Your task to perform on an android device: Open CNN.com Image 0: 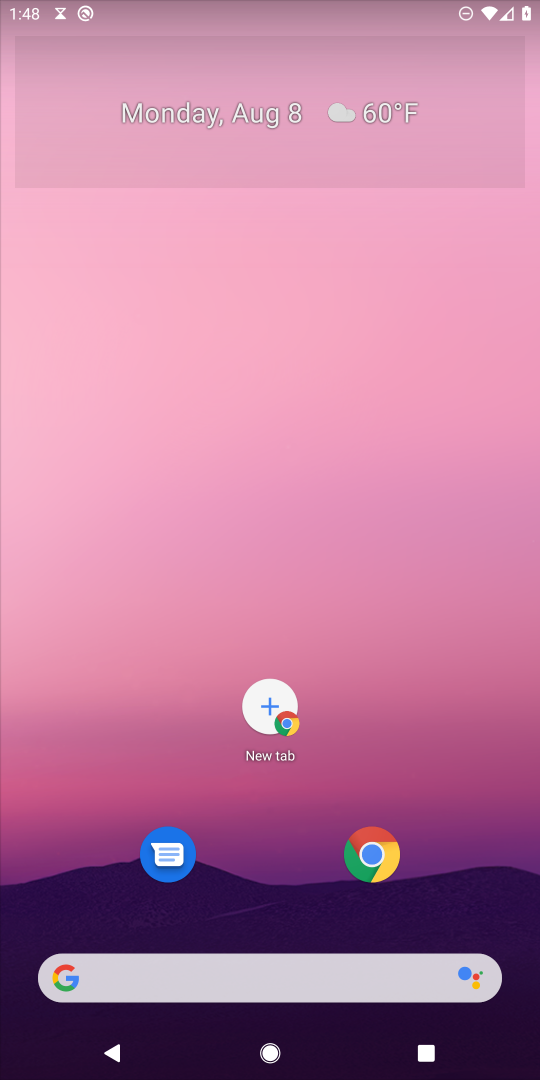
Step 0: click (56, 973)
Your task to perform on an android device: Open CNN.com Image 1: 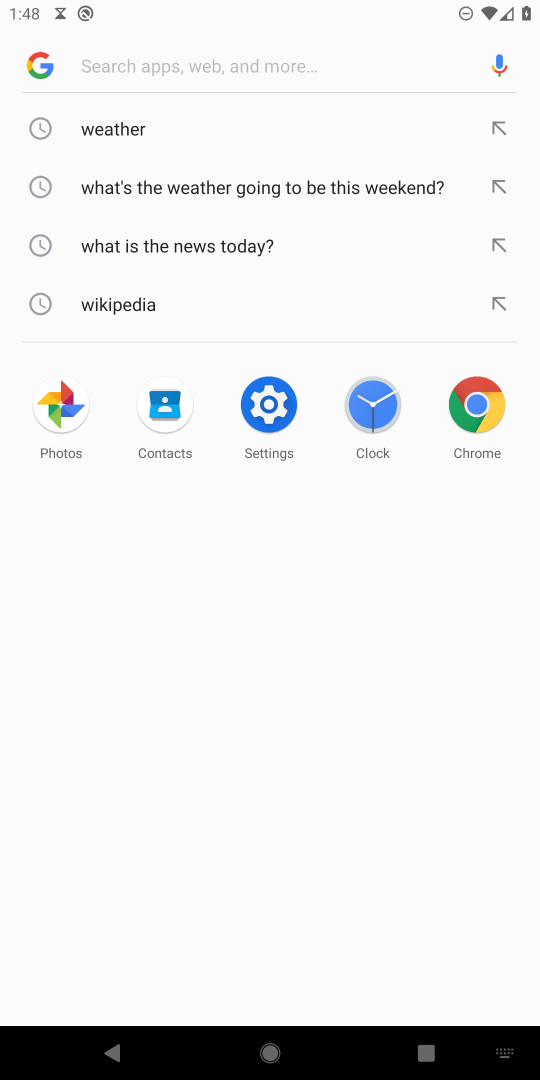
Step 1: type " CNN.com"
Your task to perform on an android device: Open CNN.com Image 2: 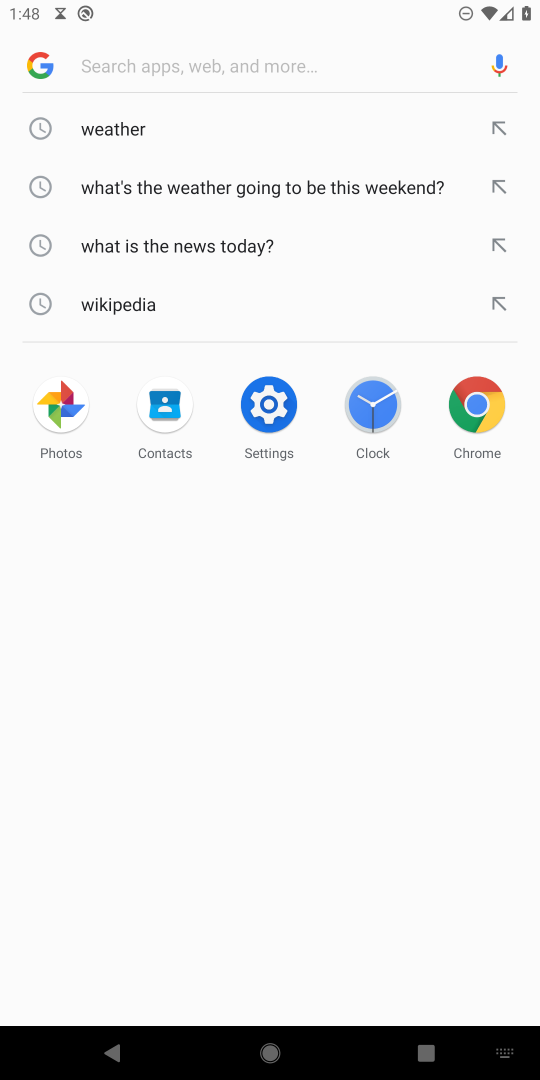
Step 2: click (200, 72)
Your task to perform on an android device: Open CNN.com Image 3: 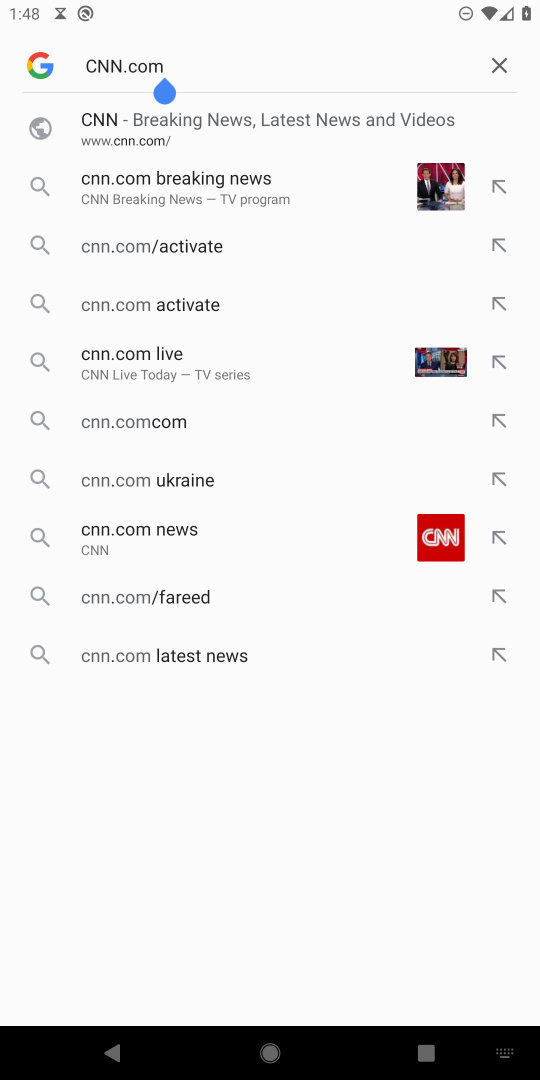
Step 3: press enter
Your task to perform on an android device: Open CNN.com Image 4: 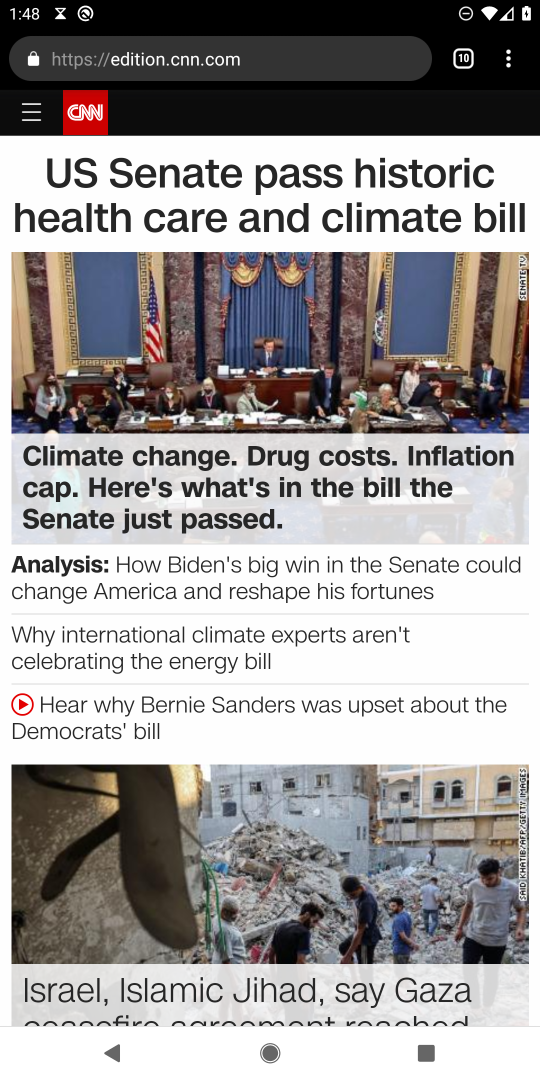
Step 4: task complete